Your task to perform on an android device: Open internet settings Image 0: 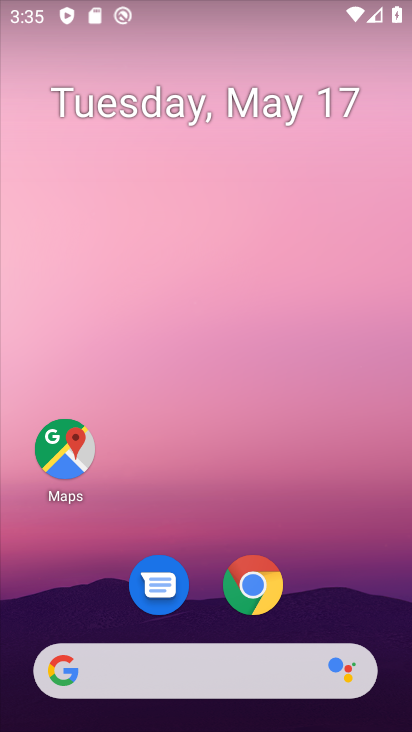
Step 0: drag from (307, 519) to (264, 30)
Your task to perform on an android device: Open internet settings Image 1: 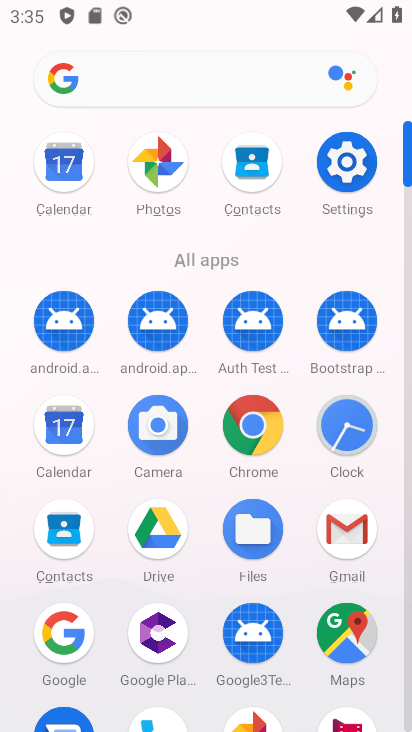
Step 1: click (341, 166)
Your task to perform on an android device: Open internet settings Image 2: 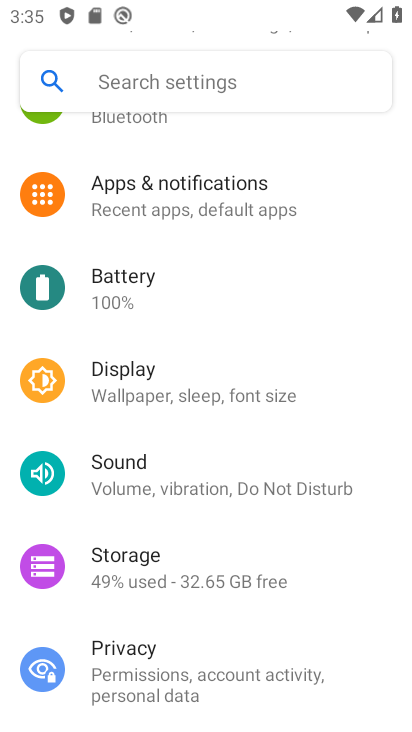
Step 2: drag from (247, 272) to (268, 597)
Your task to perform on an android device: Open internet settings Image 3: 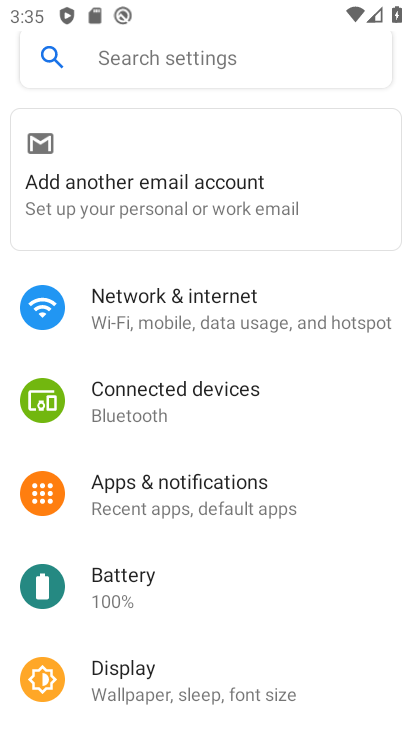
Step 3: click (263, 321)
Your task to perform on an android device: Open internet settings Image 4: 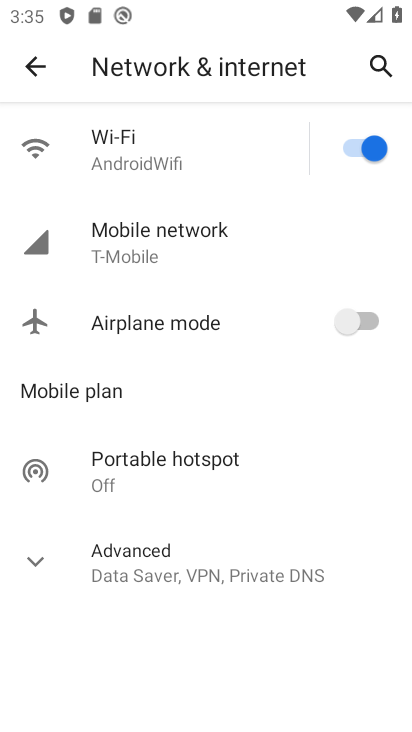
Step 4: task complete